Your task to perform on an android device: Open Google Chrome and open the bookmarks view Image 0: 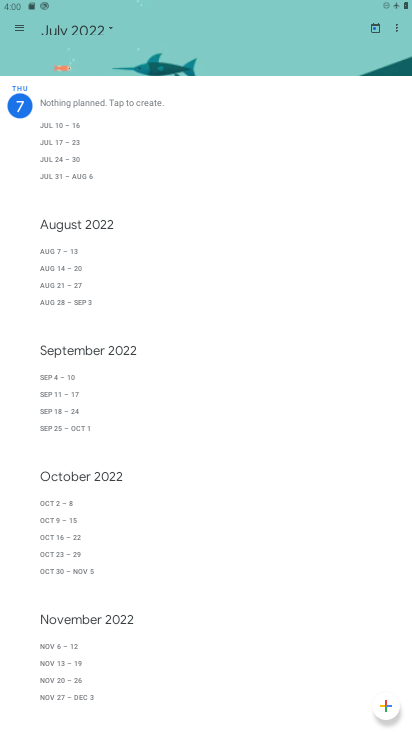
Step 0: press home button
Your task to perform on an android device: Open Google Chrome and open the bookmarks view Image 1: 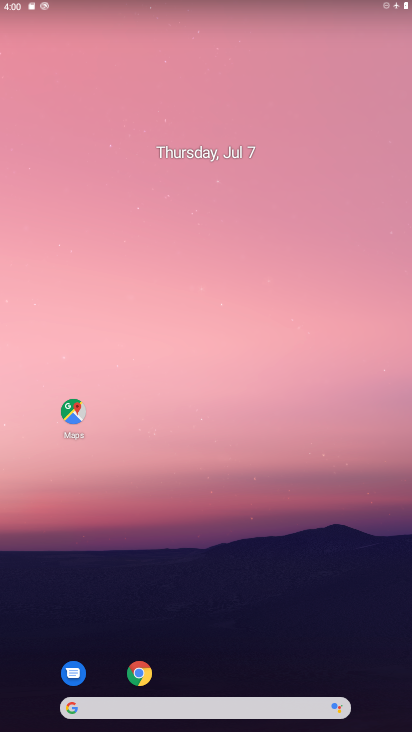
Step 1: click (140, 673)
Your task to perform on an android device: Open Google Chrome and open the bookmarks view Image 2: 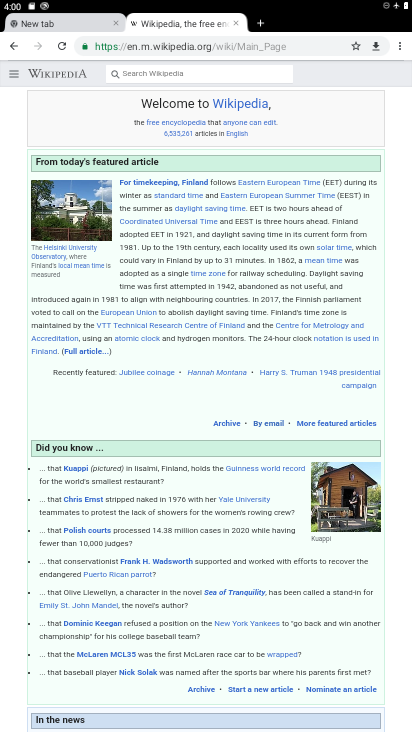
Step 2: click (400, 38)
Your task to perform on an android device: Open Google Chrome and open the bookmarks view Image 3: 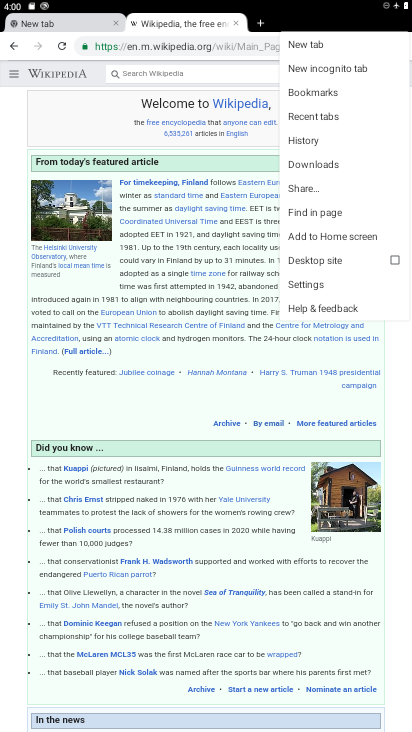
Step 3: click (331, 91)
Your task to perform on an android device: Open Google Chrome and open the bookmarks view Image 4: 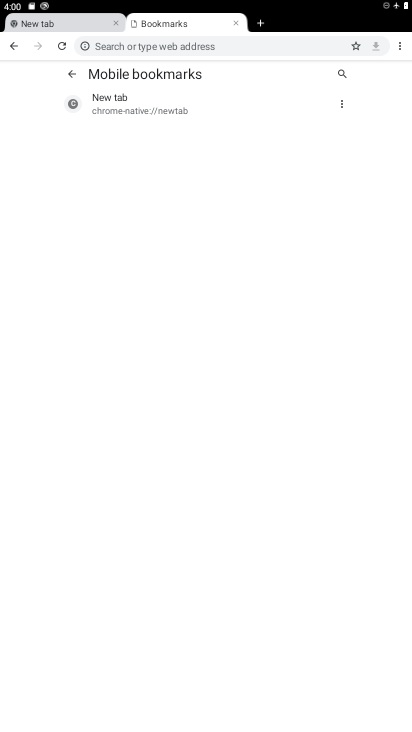
Step 4: task complete